Your task to perform on an android device: set the stopwatch Image 0: 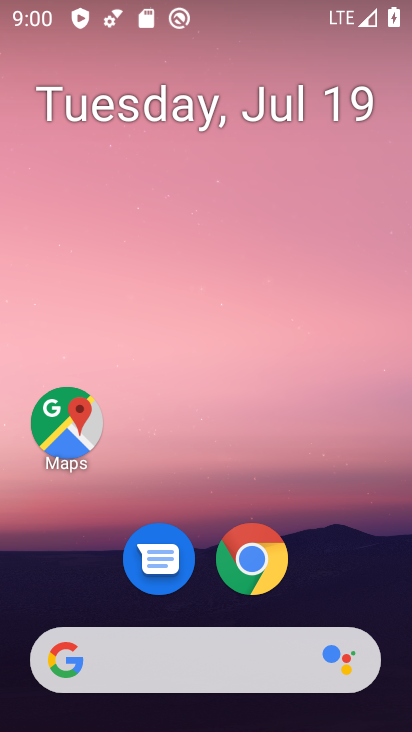
Step 0: drag from (380, 555) to (301, 195)
Your task to perform on an android device: set the stopwatch Image 1: 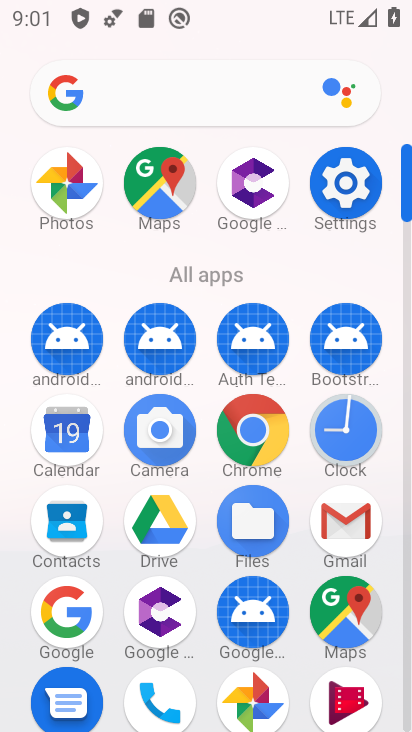
Step 1: click (352, 431)
Your task to perform on an android device: set the stopwatch Image 2: 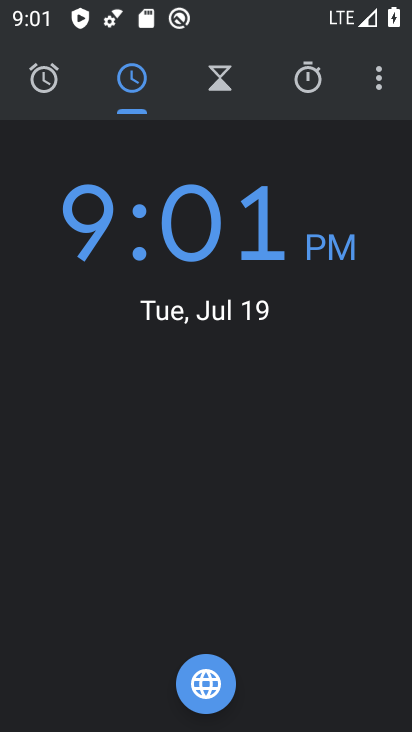
Step 2: click (327, 103)
Your task to perform on an android device: set the stopwatch Image 3: 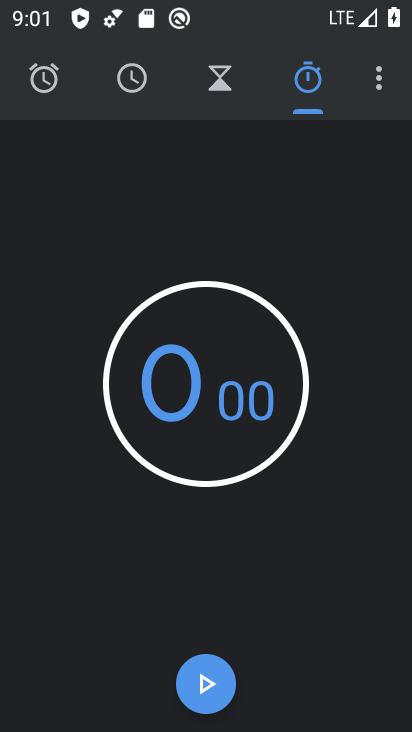
Step 3: click (215, 697)
Your task to perform on an android device: set the stopwatch Image 4: 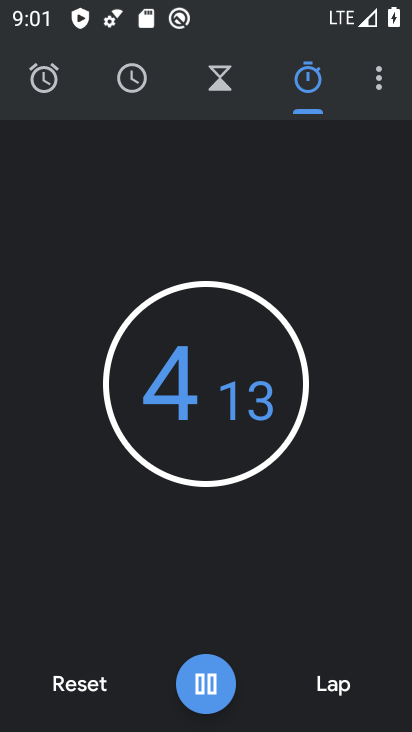
Step 4: task complete